Your task to perform on an android device: Search for hotels in Denver Image 0: 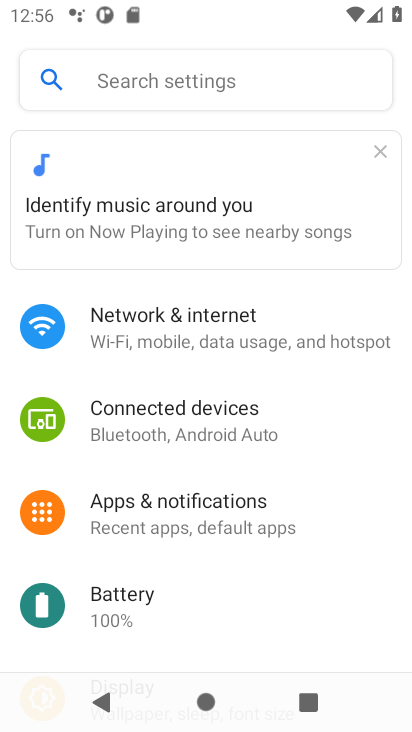
Step 0: press home button
Your task to perform on an android device: Search for hotels in Denver Image 1: 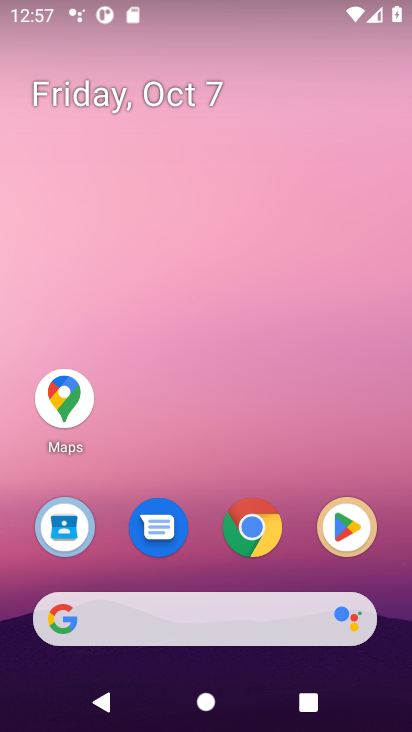
Step 1: click (183, 645)
Your task to perform on an android device: Search for hotels in Denver Image 2: 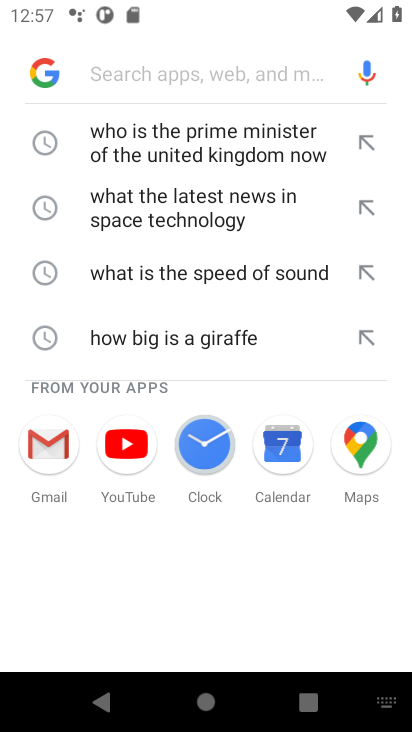
Step 2: type "Search for hotels in Denver"
Your task to perform on an android device: Search for hotels in Denver Image 3: 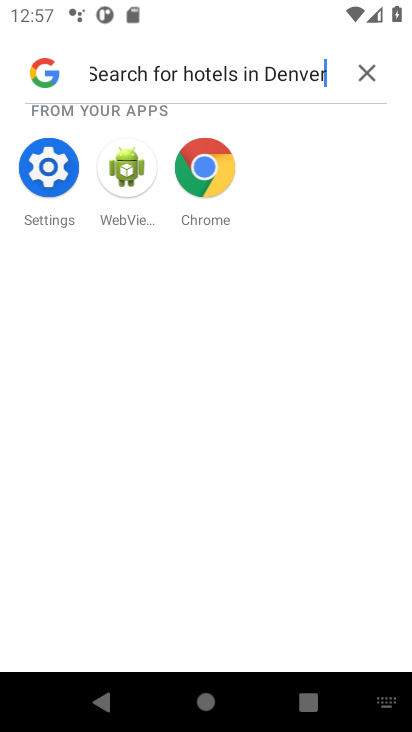
Step 3: task complete